Your task to perform on an android device: Open the phone app and click the voicemail tab. Image 0: 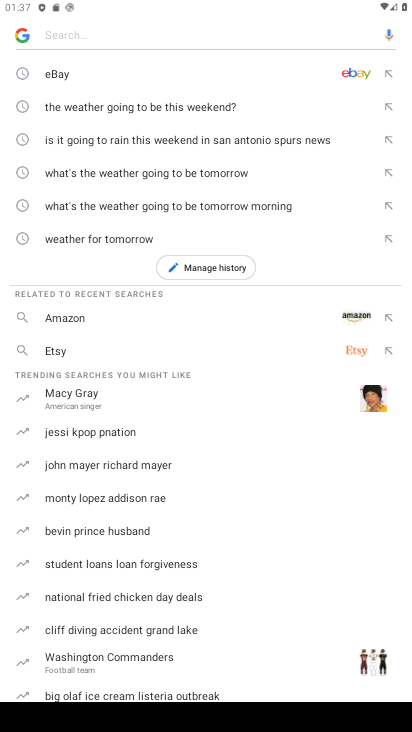
Step 0: press home button
Your task to perform on an android device: Open the phone app and click the voicemail tab. Image 1: 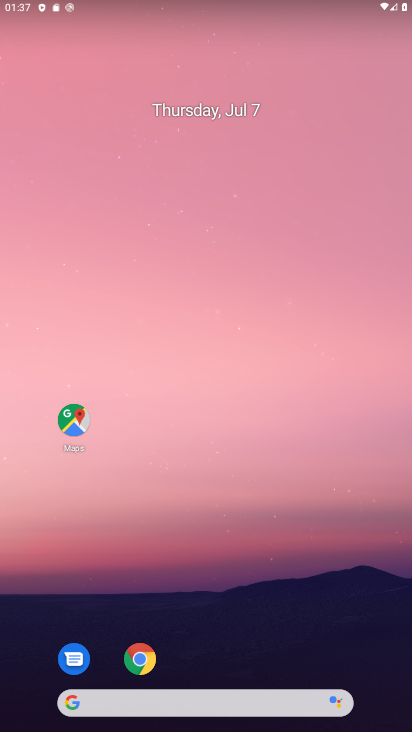
Step 1: drag from (224, 635) to (228, 50)
Your task to perform on an android device: Open the phone app and click the voicemail tab. Image 2: 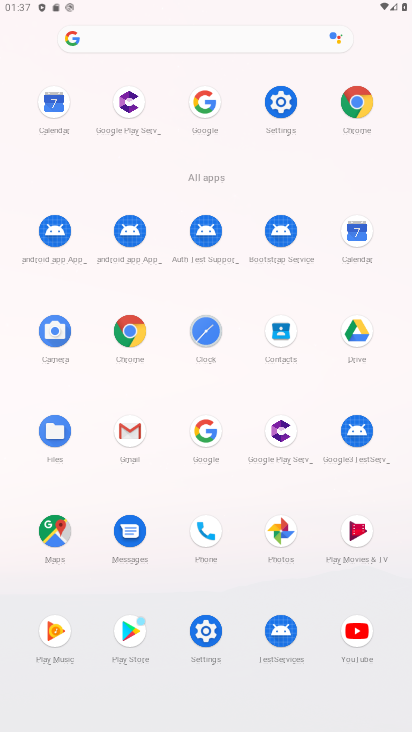
Step 2: click (211, 532)
Your task to perform on an android device: Open the phone app and click the voicemail tab. Image 3: 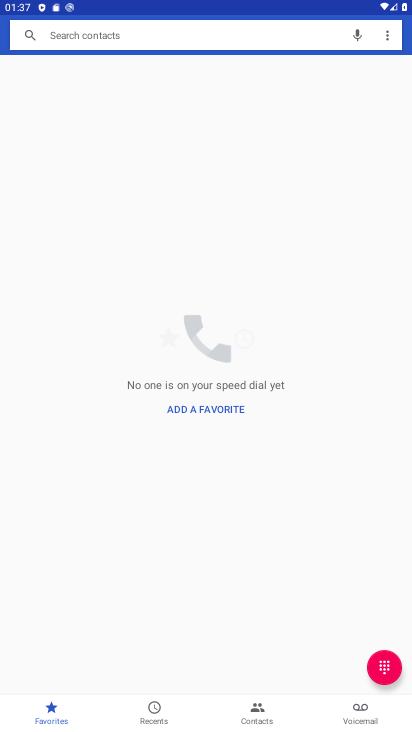
Step 3: click (361, 716)
Your task to perform on an android device: Open the phone app and click the voicemail tab. Image 4: 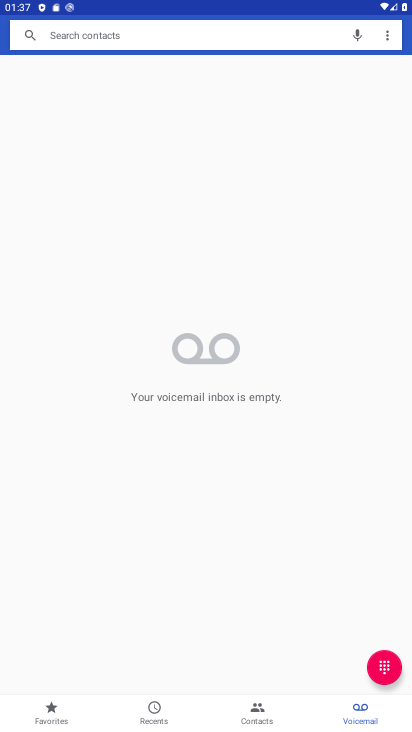
Step 4: task complete